Your task to perform on an android device: Go to Android settings Image 0: 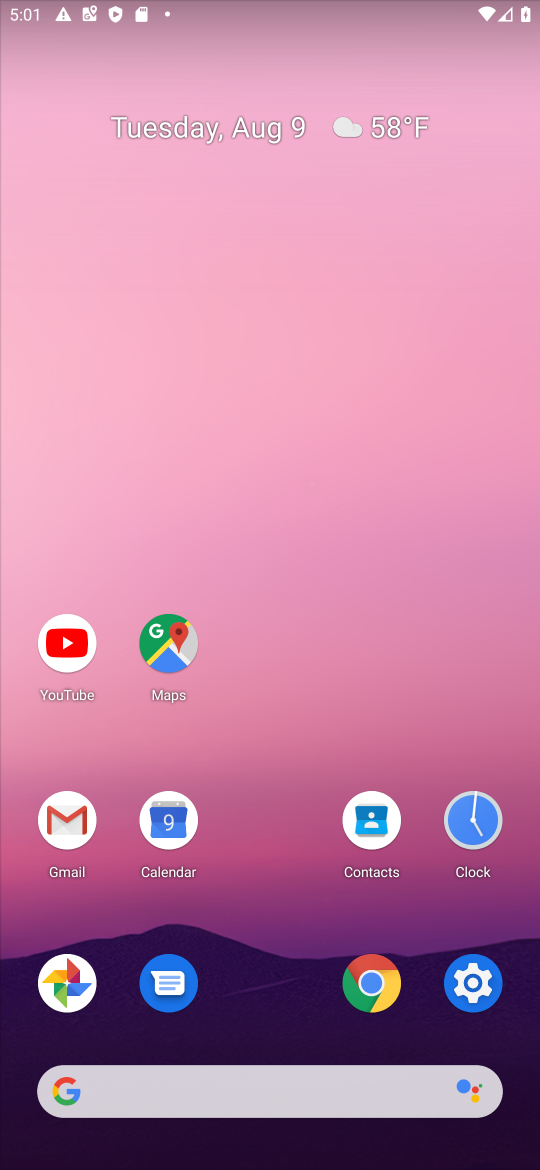
Step 0: click (473, 983)
Your task to perform on an android device: Go to Android settings Image 1: 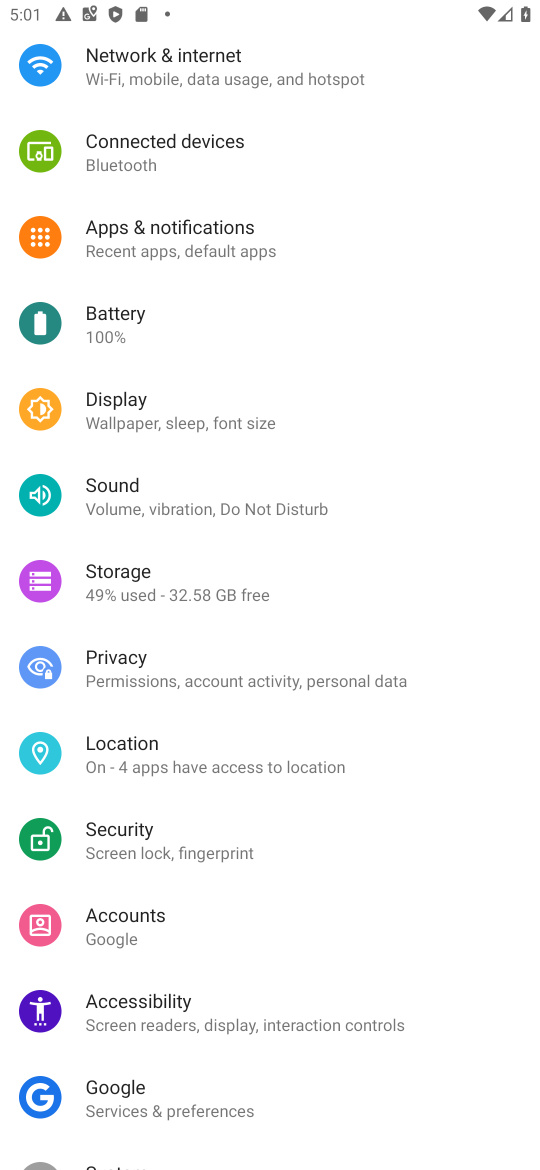
Step 1: drag from (301, 934) to (183, 229)
Your task to perform on an android device: Go to Android settings Image 2: 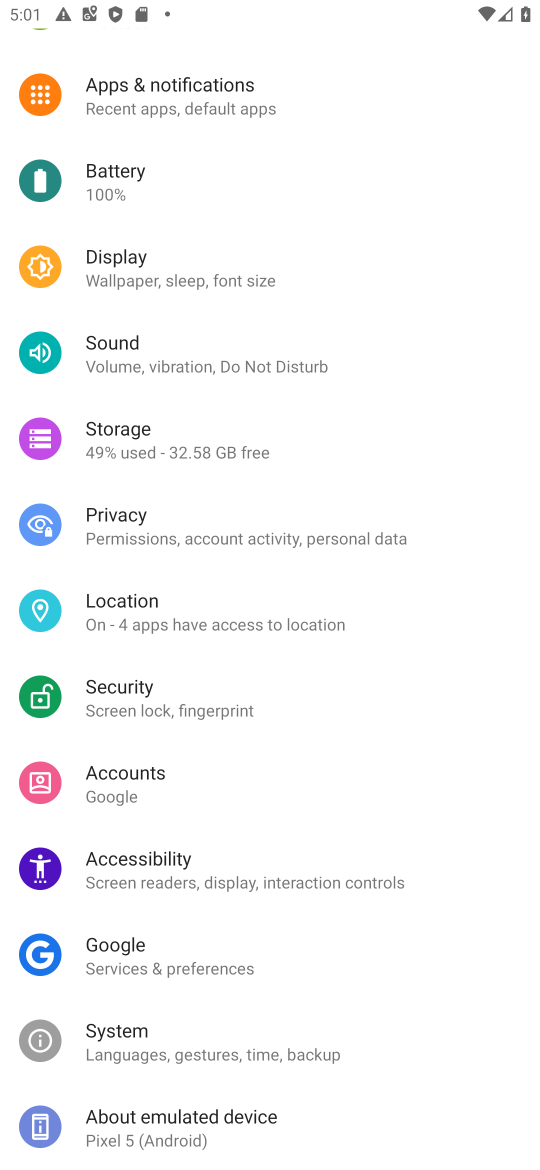
Step 2: click (148, 1112)
Your task to perform on an android device: Go to Android settings Image 3: 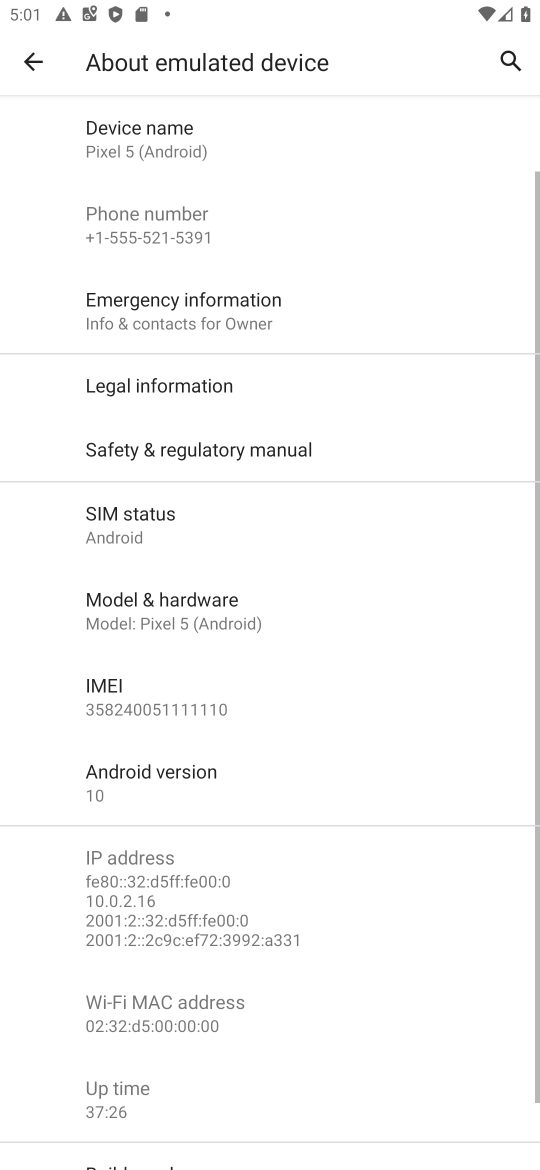
Step 3: task complete